Your task to perform on an android device: Go to internet settings Image 0: 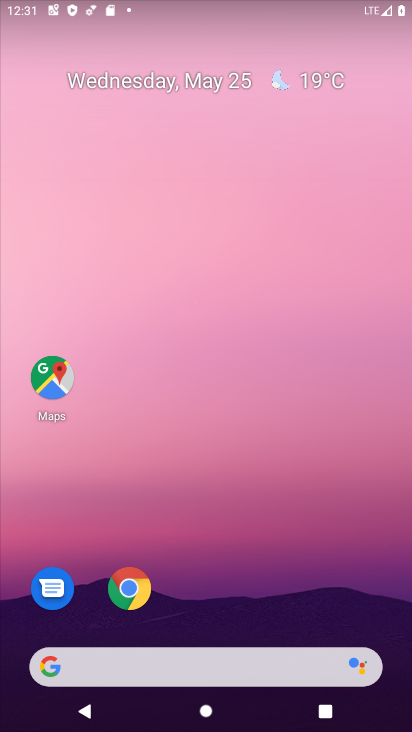
Step 0: drag from (181, 617) to (243, 200)
Your task to perform on an android device: Go to internet settings Image 1: 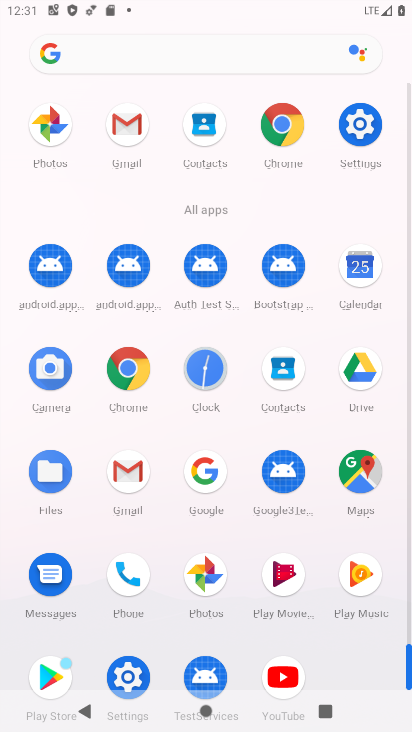
Step 1: drag from (206, 591) to (230, 318)
Your task to perform on an android device: Go to internet settings Image 2: 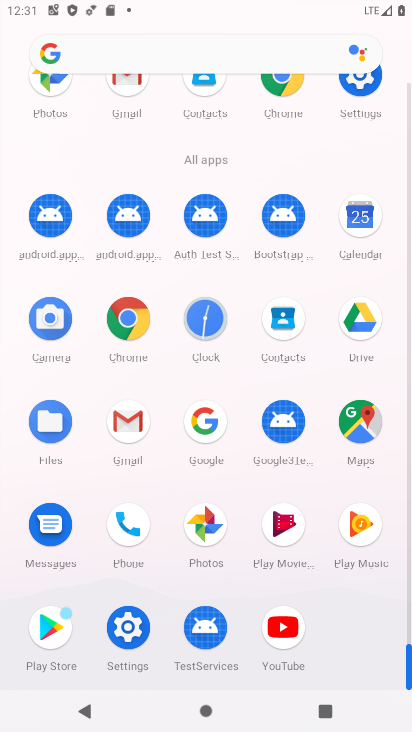
Step 2: click (123, 631)
Your task to perform on an android device: Go to internet settings Image 3: 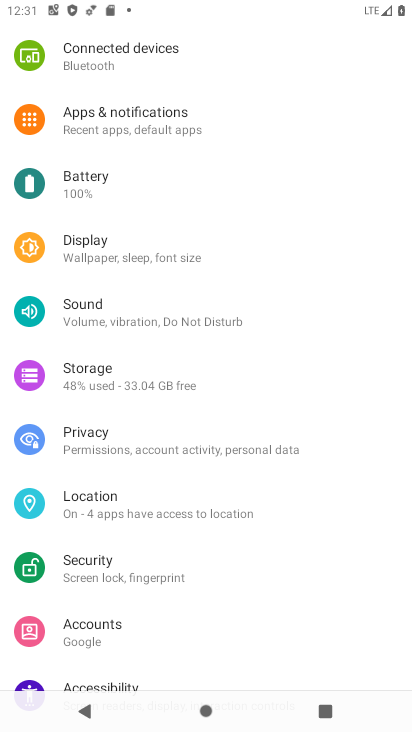
Step 3: drag from (204, 84) to (158, 532)
Your task to perform on an android device: Go to internet settings Image 4: 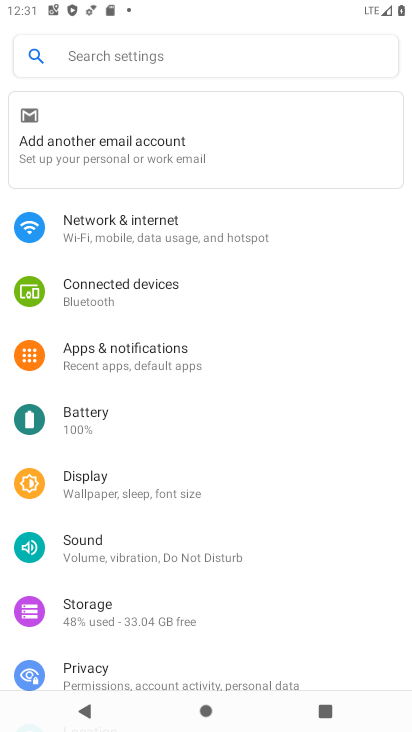
Step 4: click (223, 239)
Your task to perform on an android device: Go to internet settings Image 5: 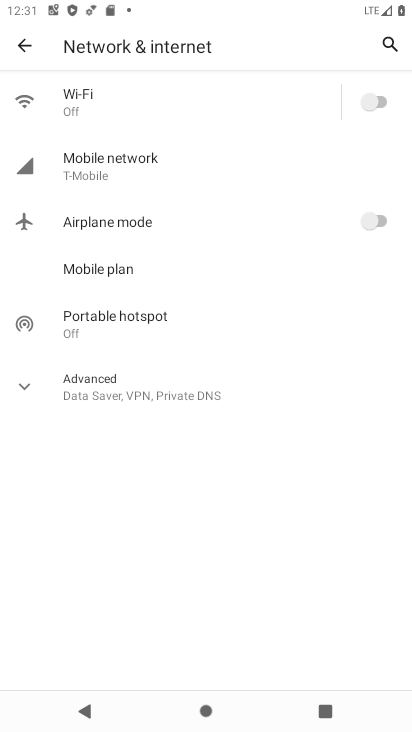
Step 5: click (175, 179)
Your task to perform on an android device: Go to internet settings Image 6: 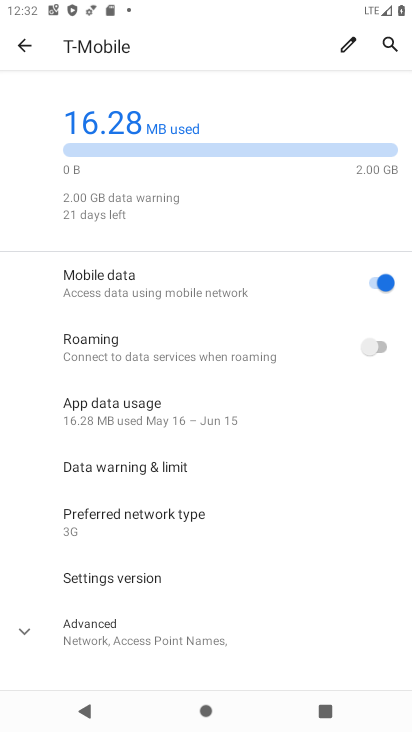
Step 6: task complete